Your task to perform on an android device: change alarm snooze length Image 0: 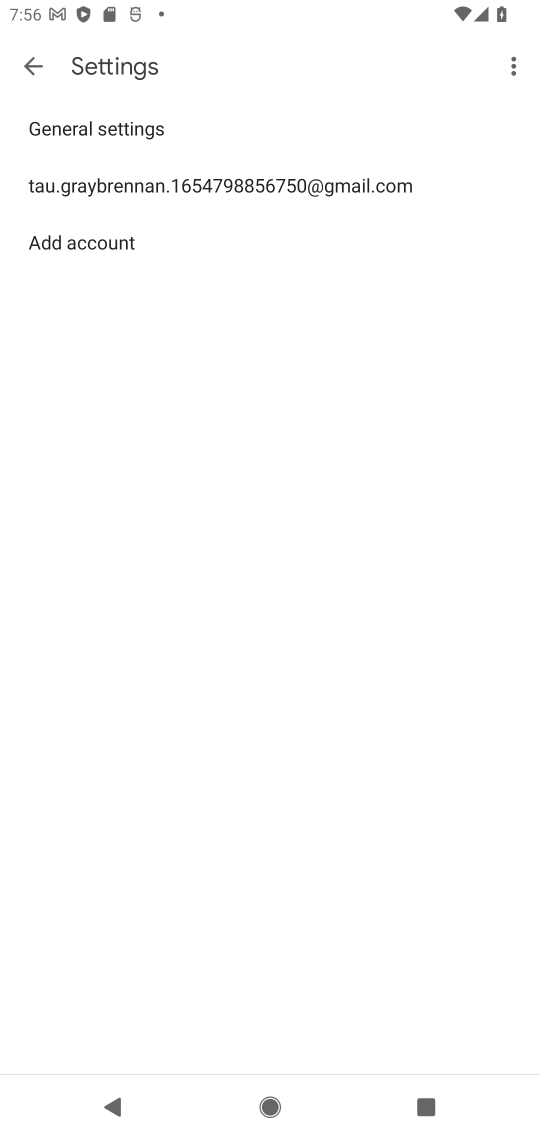
Step 0: press home button
Your task to perform on an android device: change alarm snooze length Image 1: 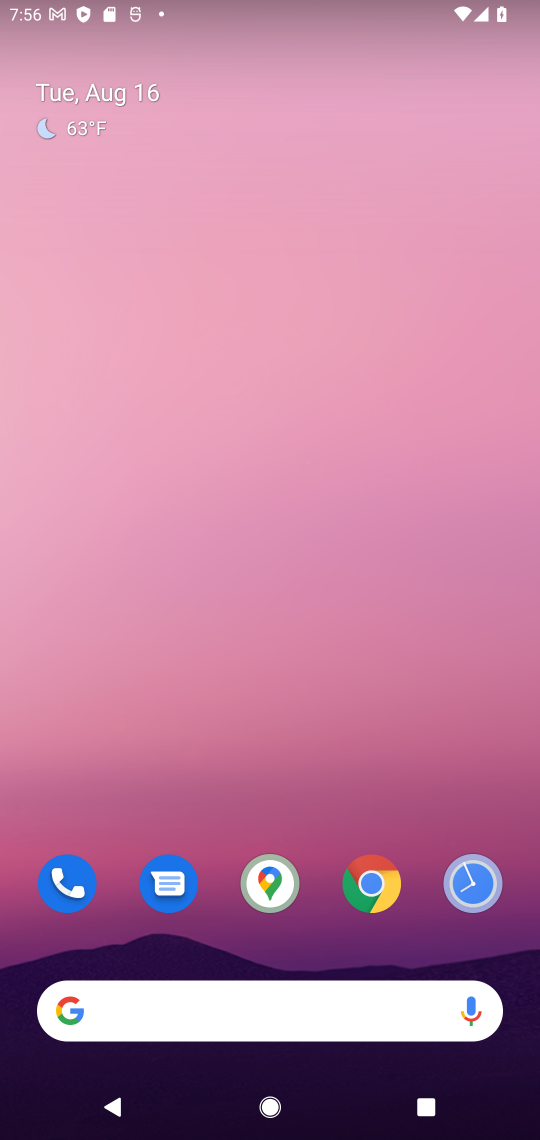
Step 1: click (478, 882)
Your task to perform on an android device: change alarm snooze length Image 2: 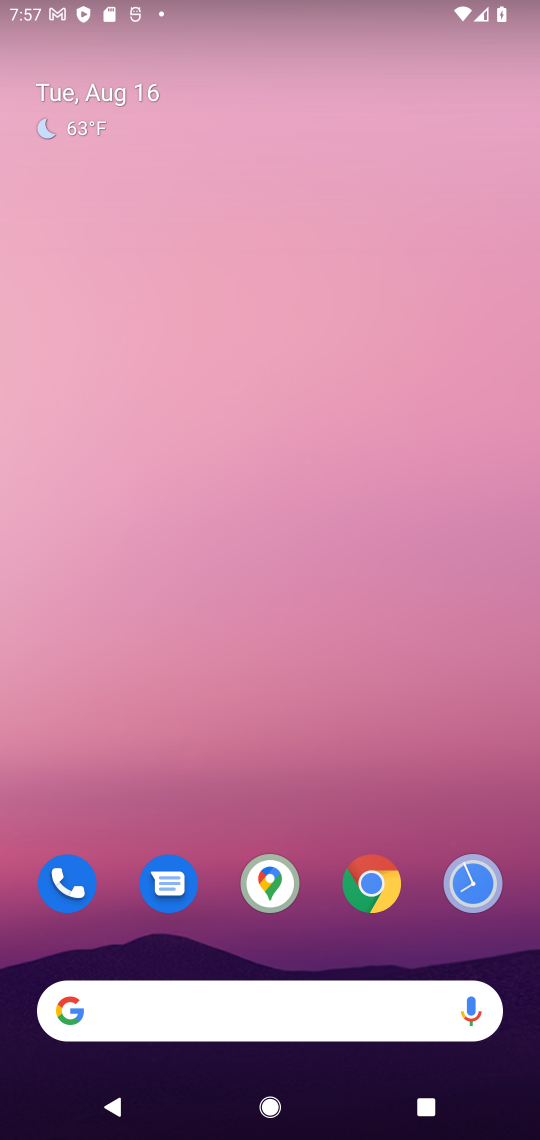
Step 2: click (489, 896)
Your task to perform on an android device: change alarm snooze length Image 3: 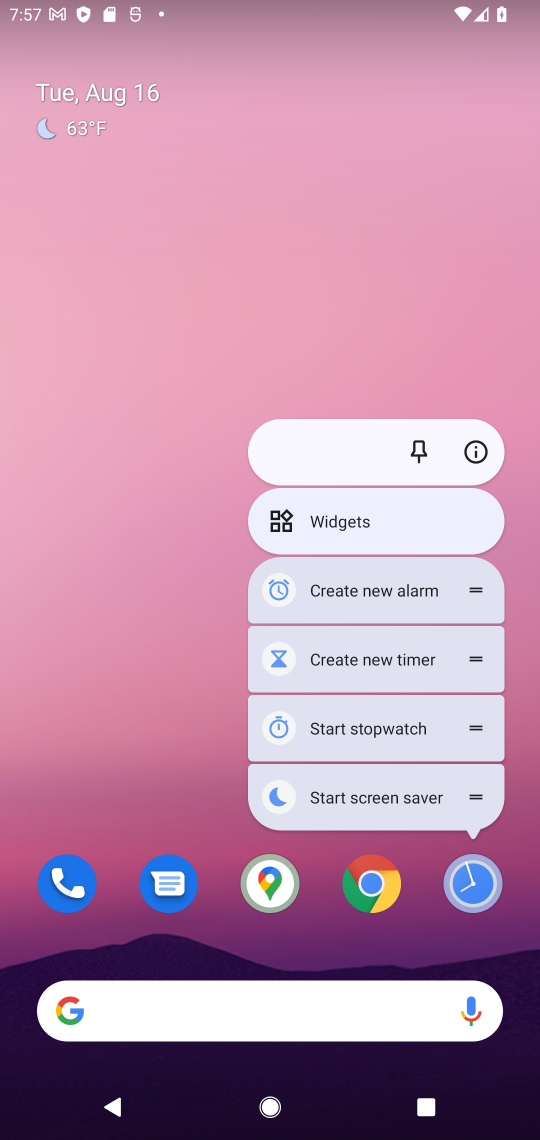
Step 3: click (472, 891)
Your task to perform on an android device: change alarm snooze length Image 4: 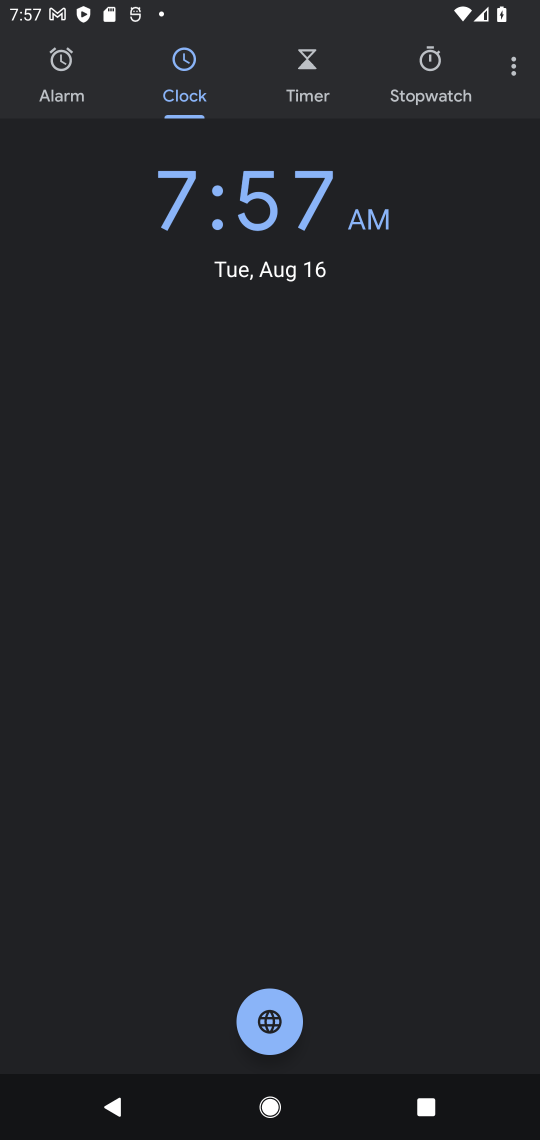
Step 4: click (512, 83)
Your task to perform on an android device: change alarm snooze length Image 5: 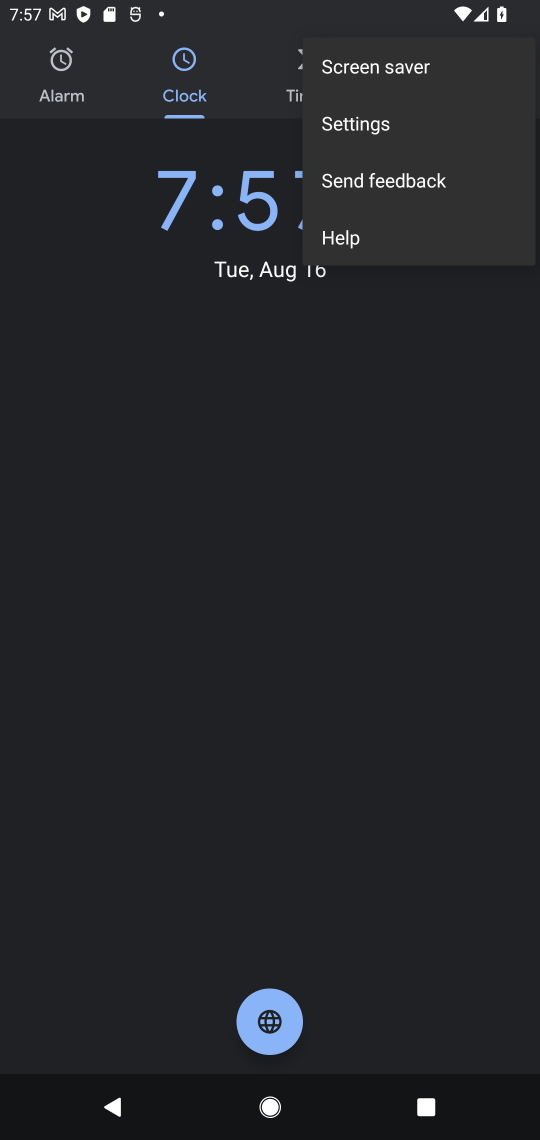
Step 5: click (383, 134)
Your task to perform on an android device: change alarm snooze length Image 6: 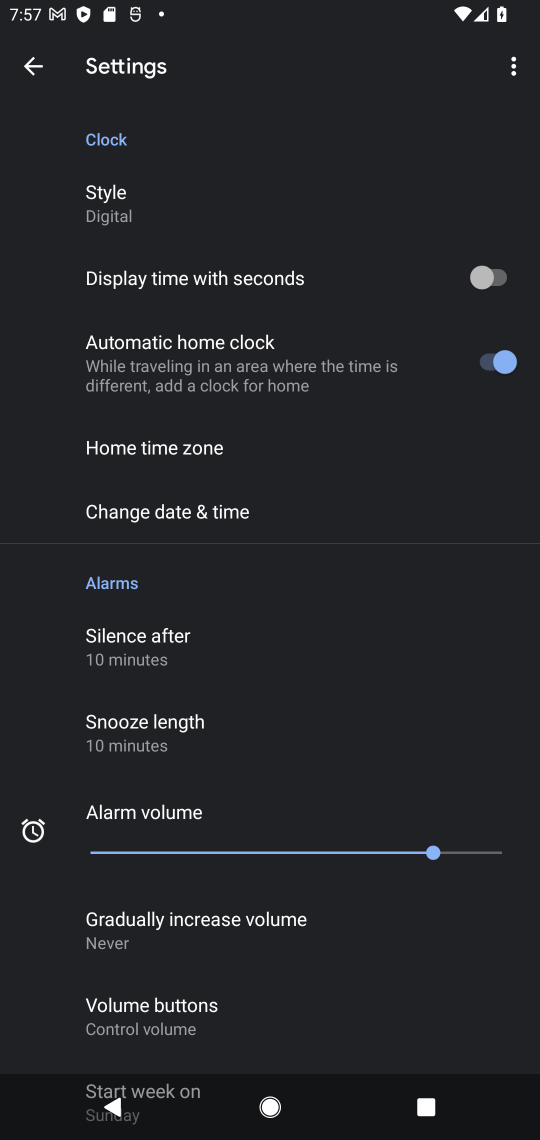
Step 6: click (221, 731)
Your task to perform on an android device: change alarm snooze length Image 7: 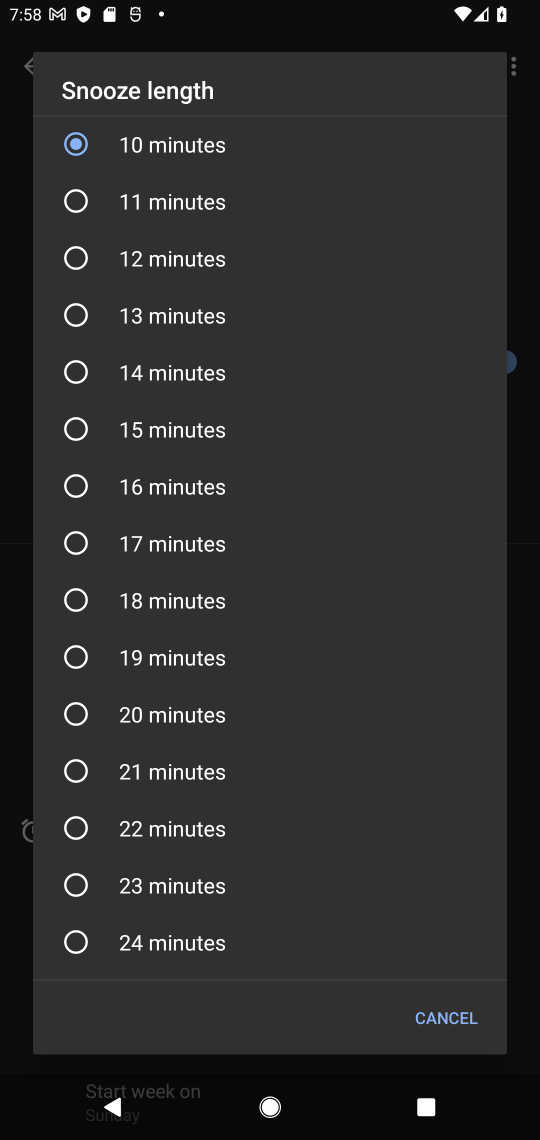
Step 7: click (208, 889)
Your task to perform on an android device: change alarm snooze length Image 8: 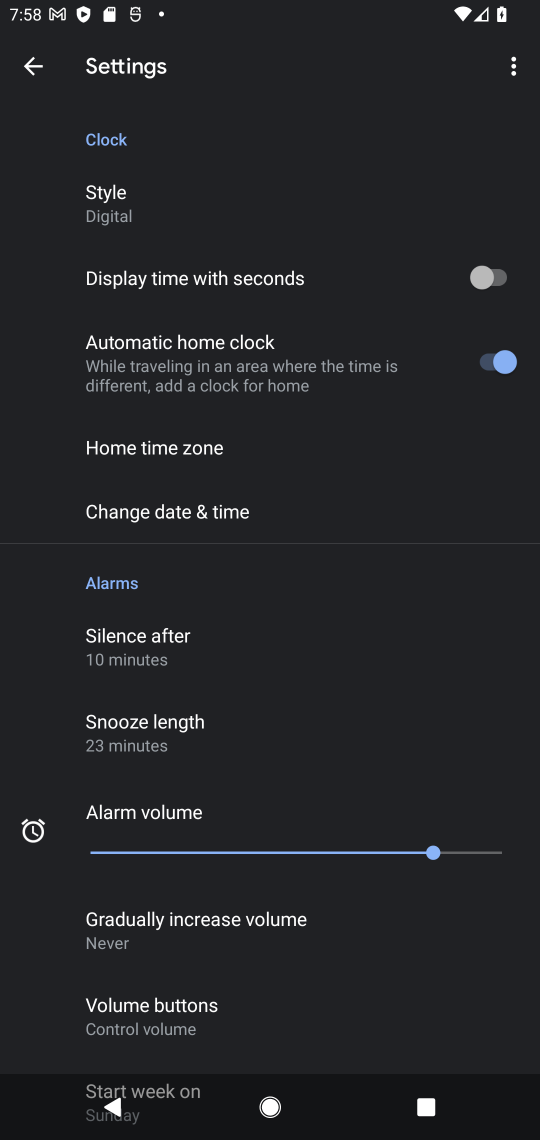
Step 8: task complete